Your task to perform on an android device: Open calendar and show me the first week of next month Image 0: 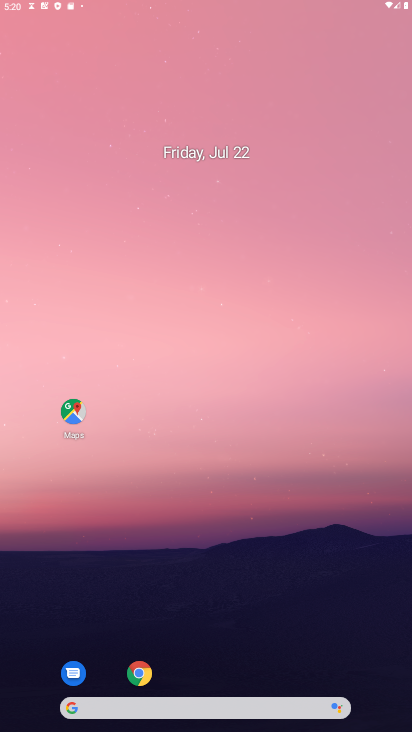
Step 0: press home button
Your task to perform on an android device: Open calendar and show me the first week of next month Image 1: 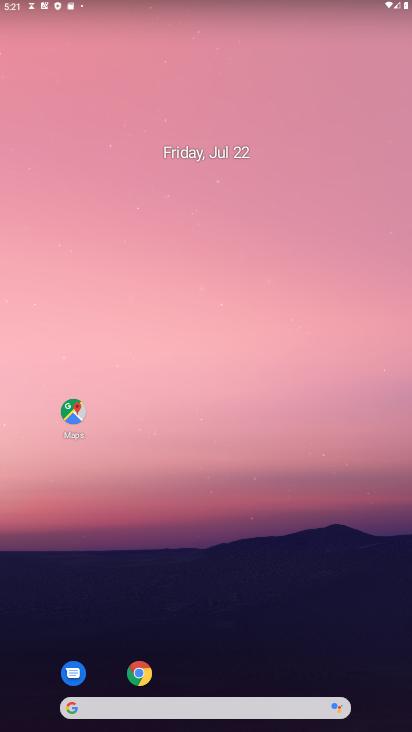
Step 1: drag from (217, 615) to (242, 235)
Your task to perform on an android device: Open calendar and show me the first week of next month Image 2: 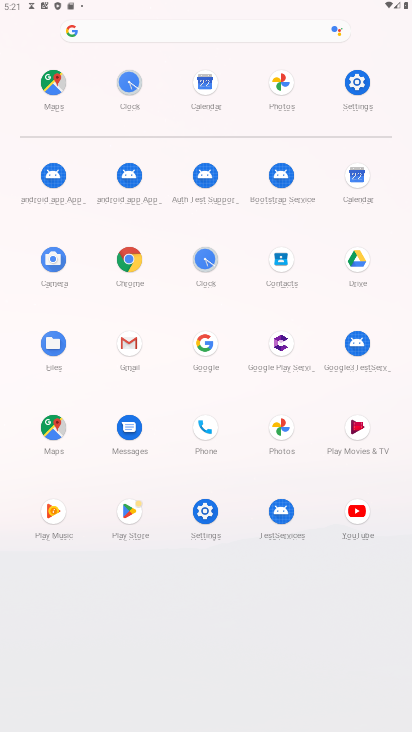
Step 2: click (359, 180)
Your task to perform on an android device: Open calendar and show me the first week of next month Image 3: 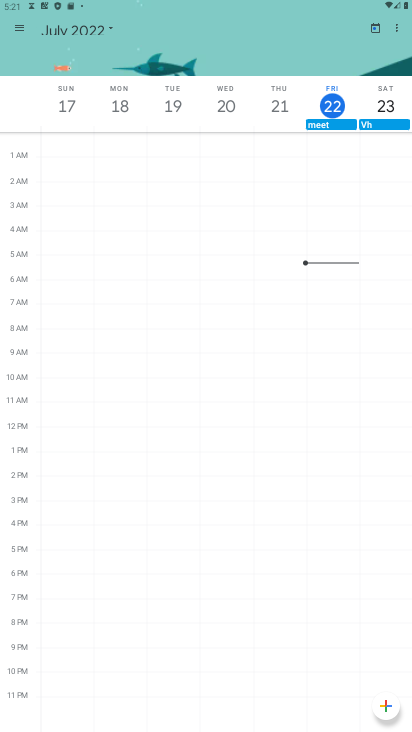
Step 3: click (61, 38)
Your task to perform on an android device: Open calendar and show me the first week of next month Image 4: 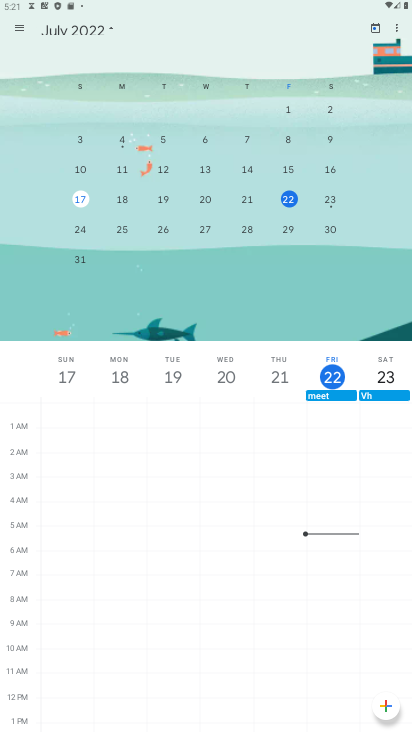
Step 4: drag from (321, 188) to (58, 201)
Your task to perform on an android device: Open calendar and show me the first week of next month Image 5: 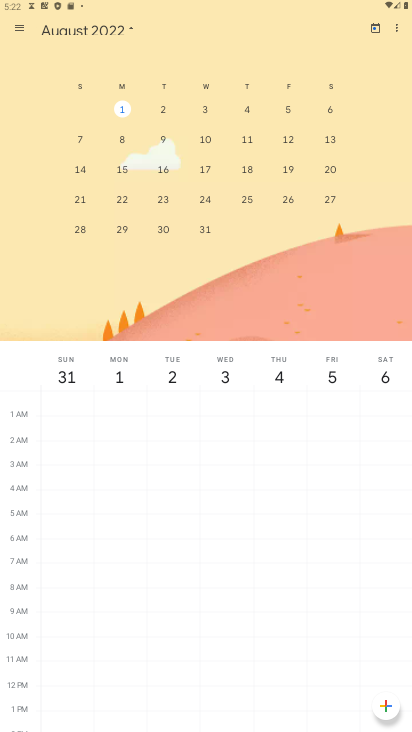
Step 5: click (165, 117)
Your task to perform on an android device: Open calendar and show me the first week of next month Image 6: 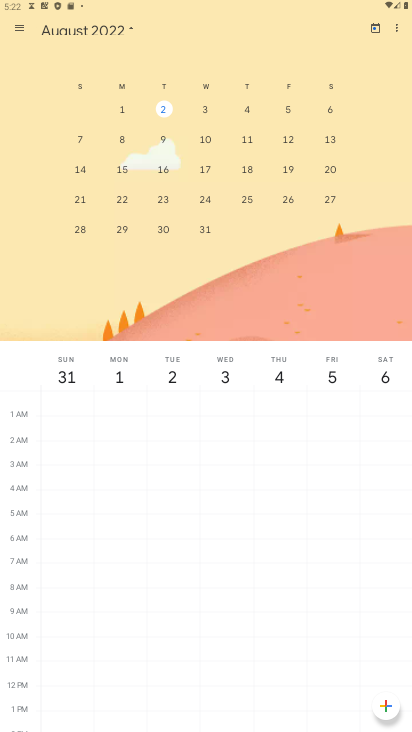
Step 6: click (211, 122)
Your task to perform on an android device: Open calendar and show me the first week of next month Image 7: 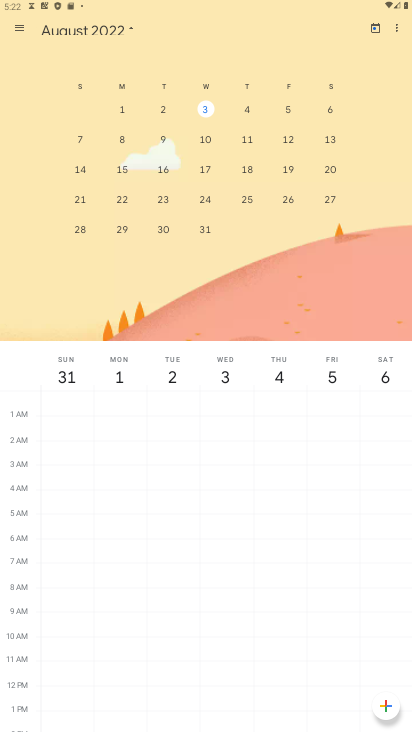
Step 7: click (243, 112)
Your task to perform on an android device: Open calendar and show me the first week of next month Image 8: 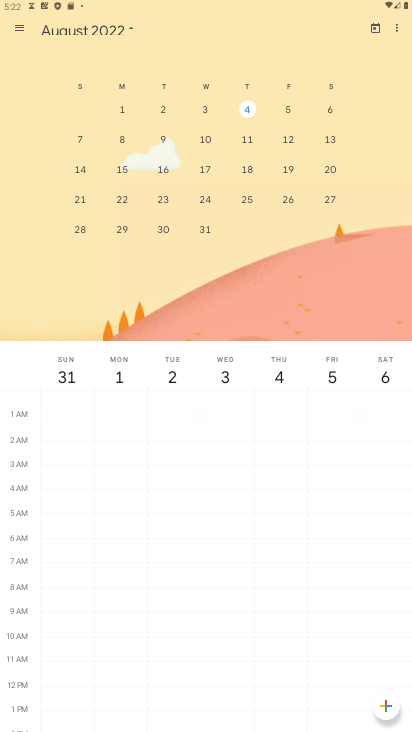
Step 8: click (290, 111)
Your task to perform on an android device: Open calendar and show me the first week of next month Image 9: 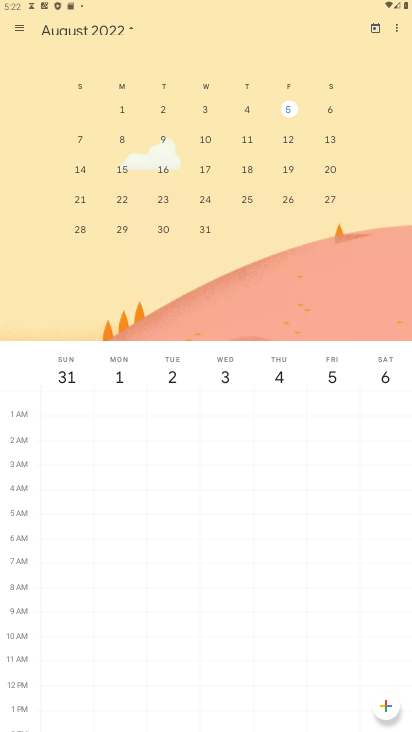
Step 9: click (328, 116)
Your task to perform on an android device: Open calendar and show me the first week of next month Image 10: 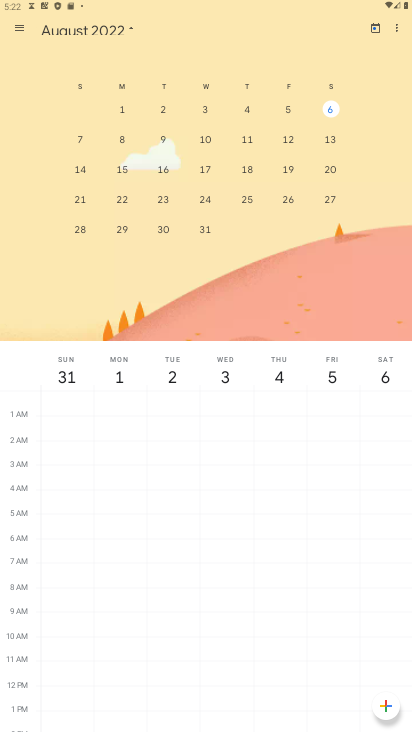
Step 10: click (76, 143)
Your task to perform on an android device: Open calendar and show me the first week of next month Image 11: 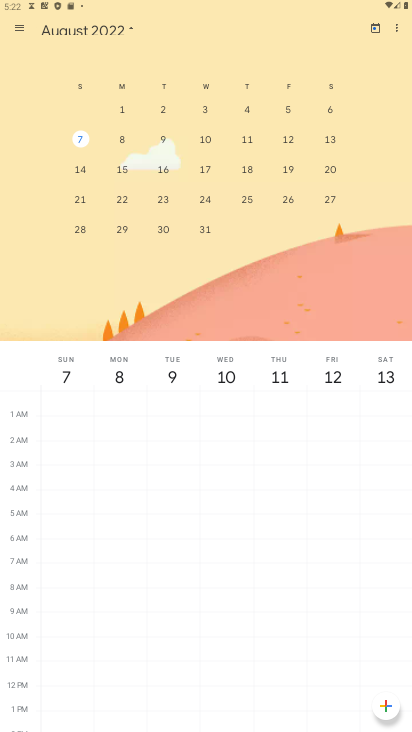
Step 11: task complete